Your task to perform on an android device: Go to Android settings Image 0: 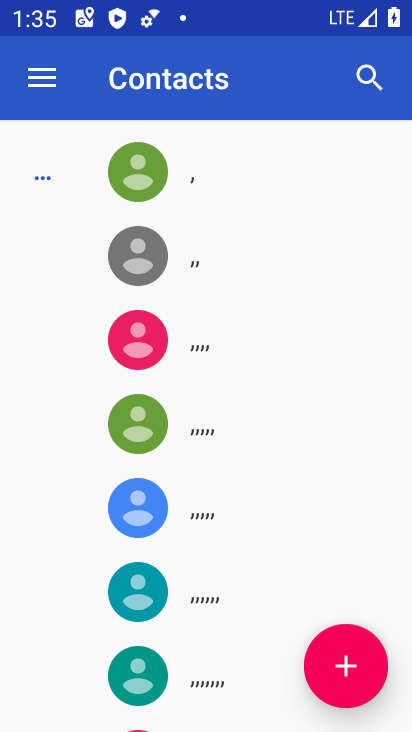
Step 0: press home button
Your task to perform on an android device: Go to Android settings Image 1: 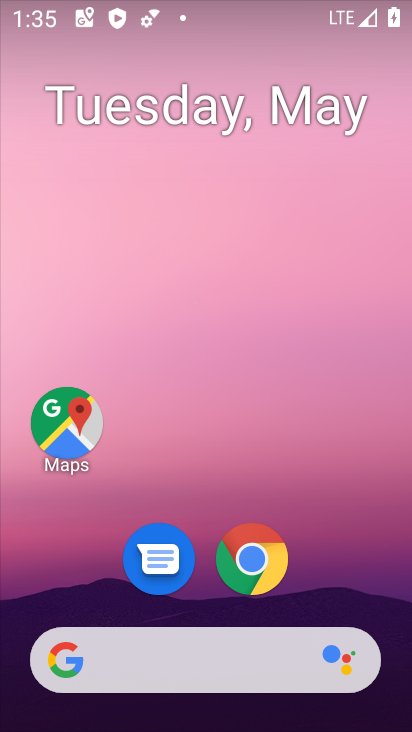
Step 1: drag from (355, 549) to (287, 133)
Your task to perform on an android device: Go to Android settings Image 2: 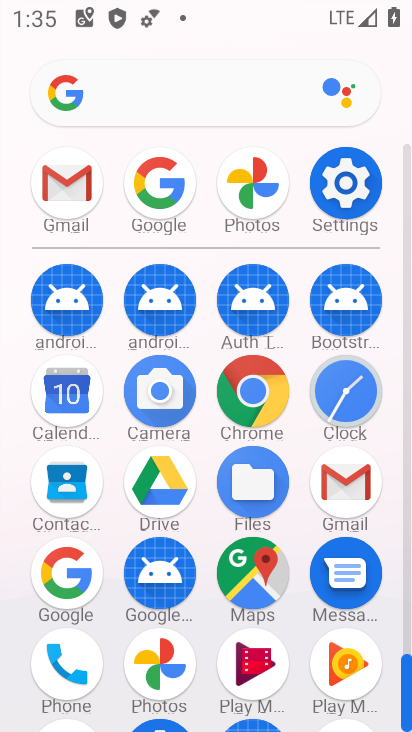
Step 2: click (347, 193)
Your task to perform on an android device: Go to Android settings Image 3: 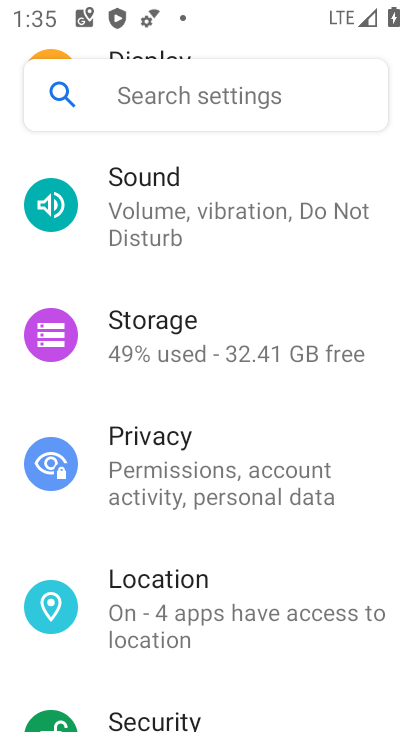
Step 3: drag from (260, 572) to (246, 145)
Your task to perform on an android device: Go to Android settings Image 4: 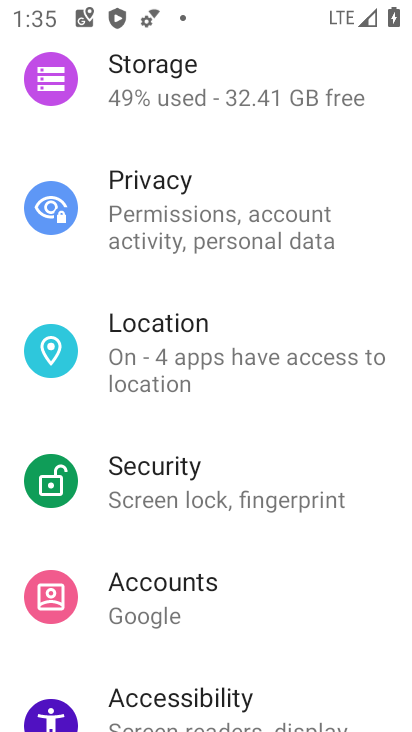
Step 4: drag from (238, 577) to (236, 219)
Your task to perform on an android device: Go to Android settings Image 5: 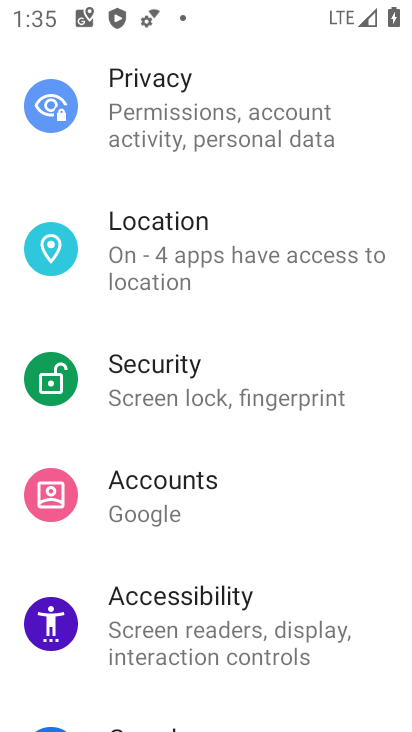
Step 5: drag from (238, 617) to (241, 211)
Your task to perform on an android device: Go to Android settings Image 6: 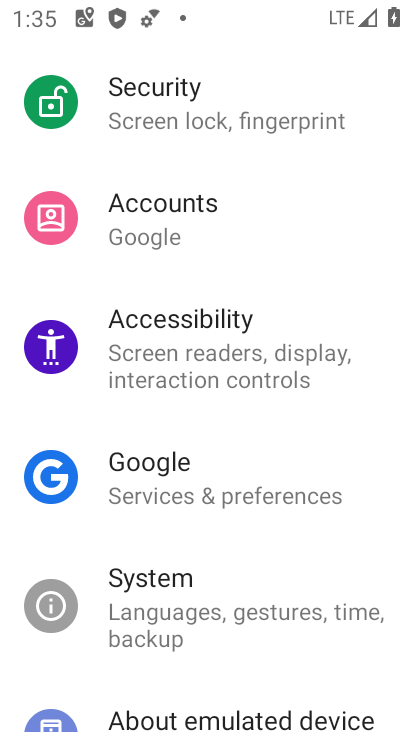
Step 6: drag from (242, 609) to (271, 231)
Your task to perform on an android device: Go to Android settings Image 7: 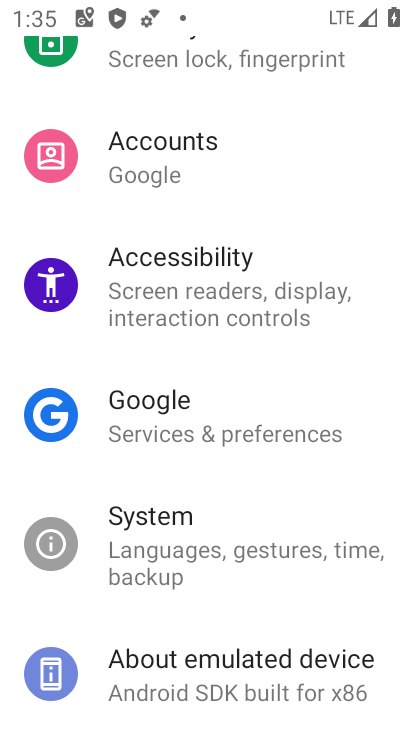
Step 7: click (231, 664)
Your task to perform on an android device: Go to Android settings Image 8: 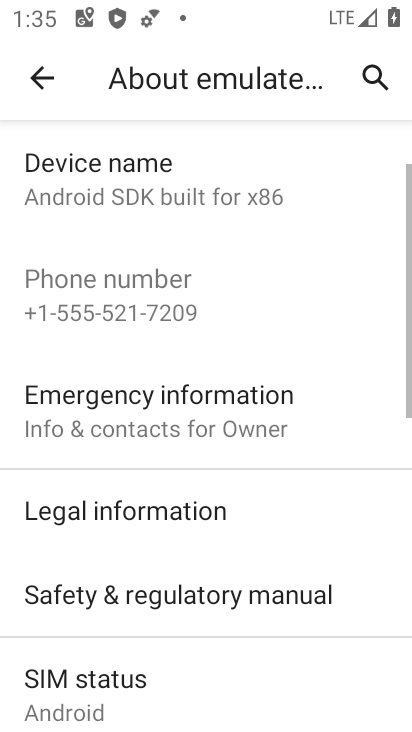
Step 8: drag from (218, 599) to (230, 157)
Your task to perform on an android device: Go to Android settings Image 9: 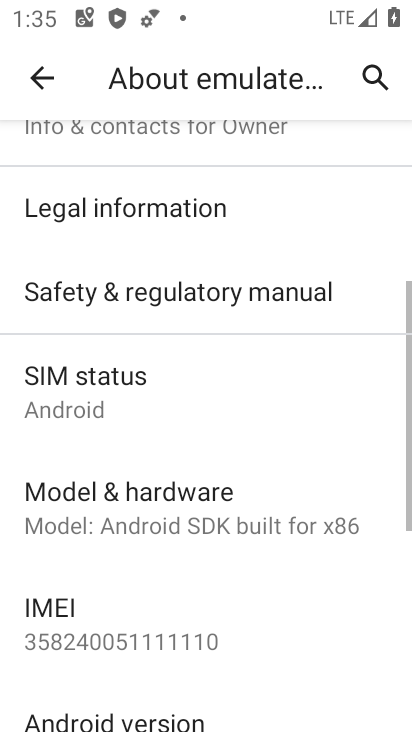
Step 9: drag from (212, 591) to (228, 288)
Your task to perform on an android device: Go to Android settings Image 10: 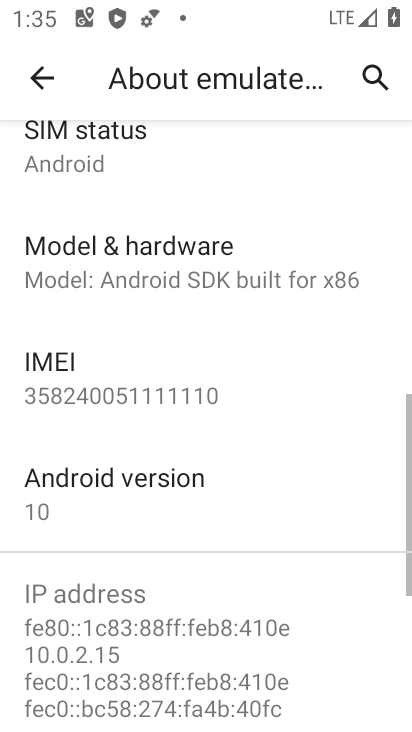
Step 10: click (166, 494)
Your task to perform on an android device: Go to Android settings Image 11: 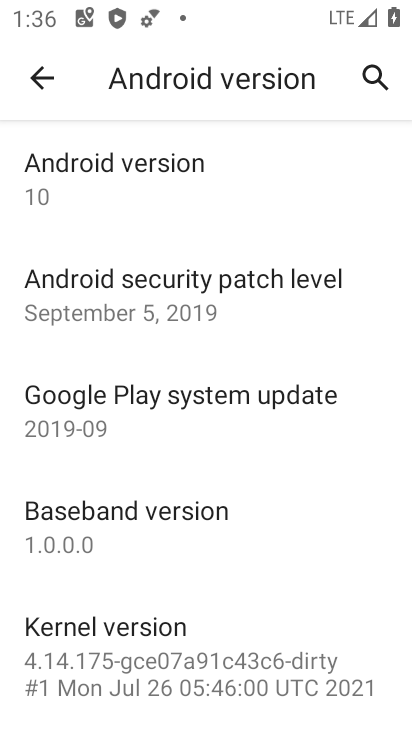
Step 11: task complete